Your task to perform on an android device: Check out the new nike air max 2020. Image 0: 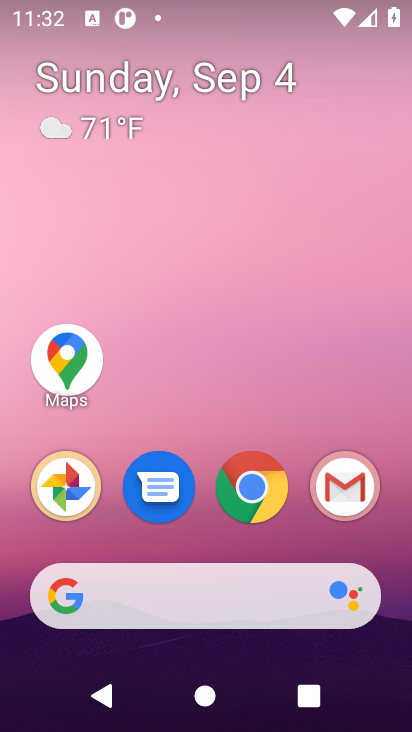
Step 0: click (149, 609)
Your task to perform on an android device: Check out the new nike air max 2020. Image 1: 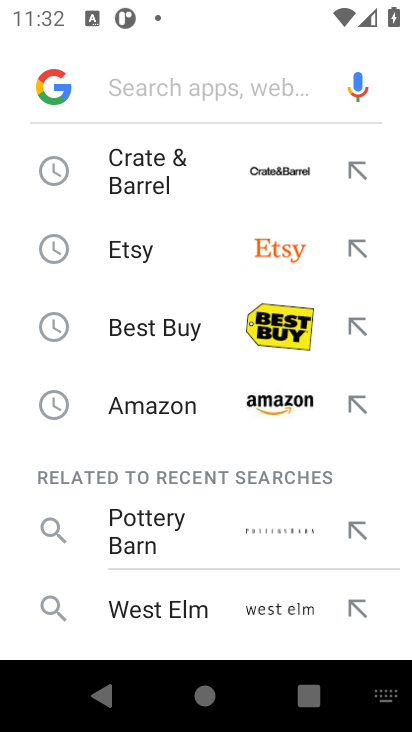
Step 1: type "nike air max 2020."
Your task to perform on an android device: Check out the new nike air max 2020. Image 2: 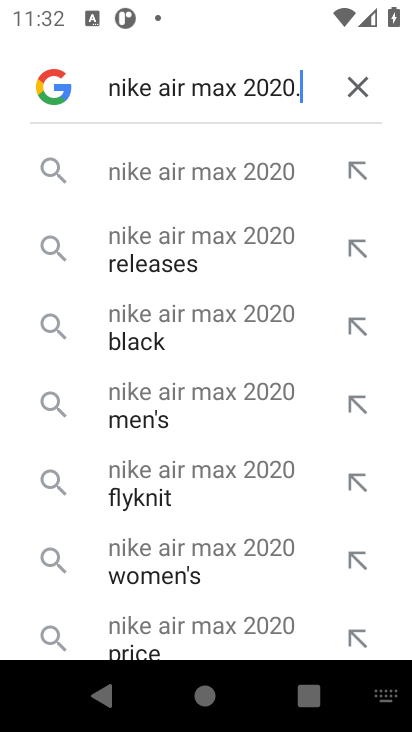
Step 2: click (245, 165)
Your task to perform on an android device: Check out the new nike air max 2020. Image 3: 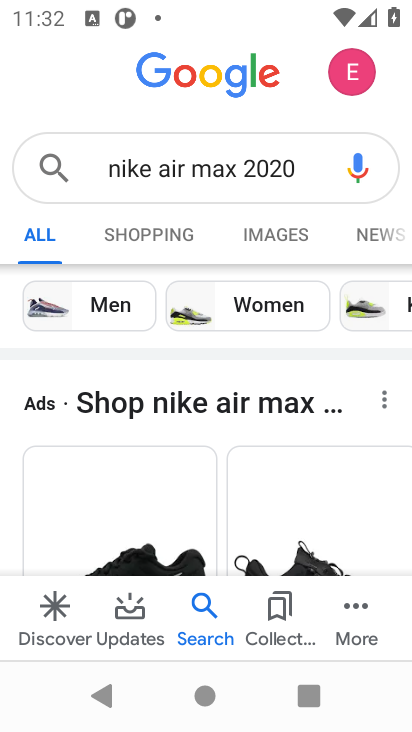
Step 3: task complete